Your task to perform on an android device: Empty the shopping cart on amazon. Add macbook pro to the cart on amazon Image 0: 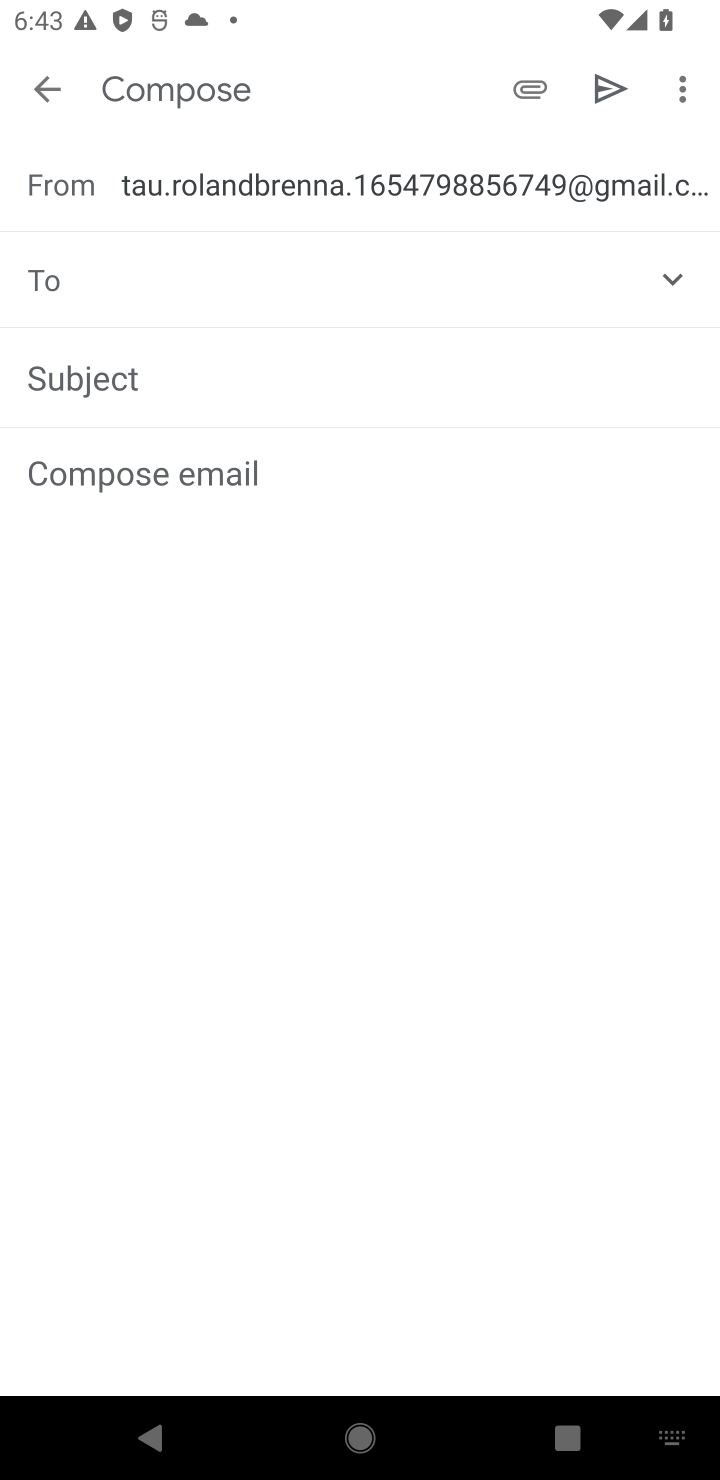
Step 0: press home button
Your task to perform on an android device: Empty the shopping cart on amazon. Add macbook pro to the cart on amazon Image 1: 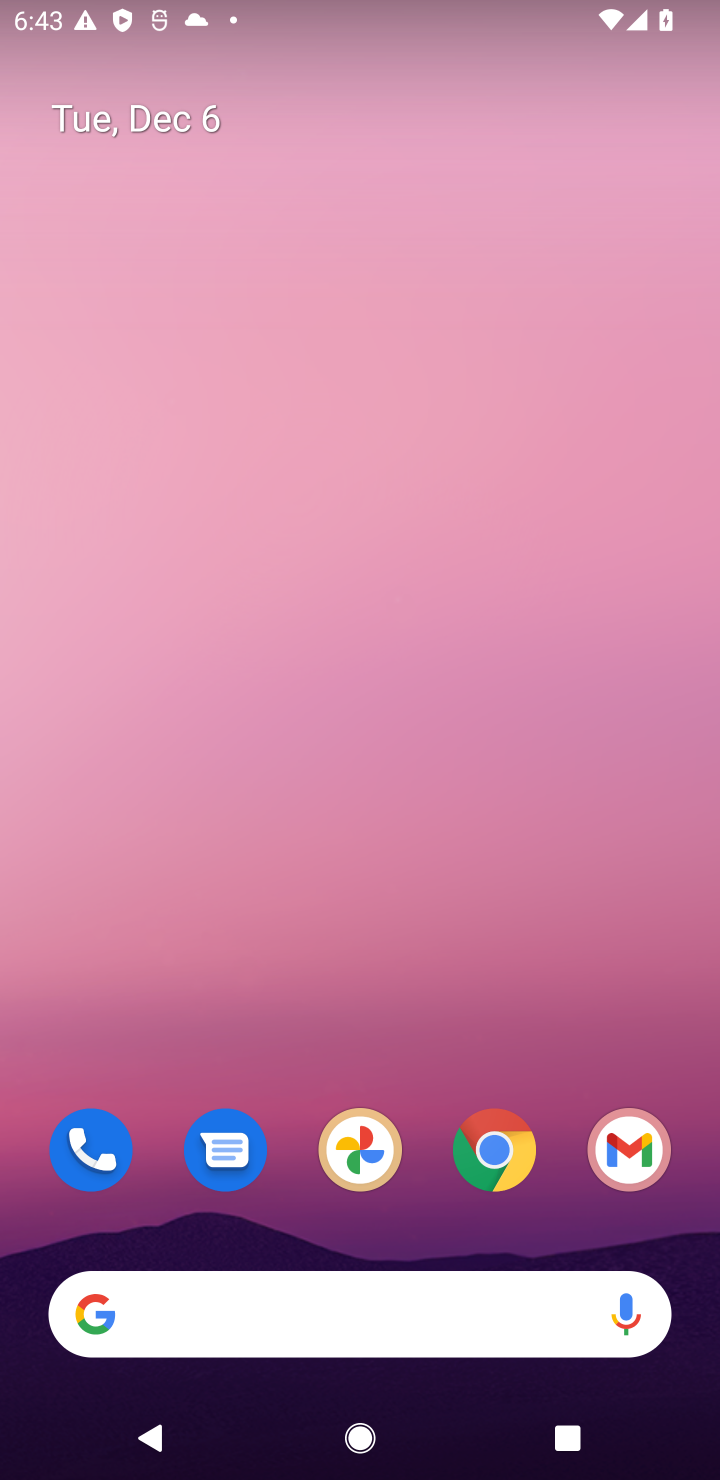
Step 1: click (499, 1172)
Your task to perform on an android device: Empty the shopping cart on amazon. Add macbook pro to the cart on amazon Image 2: 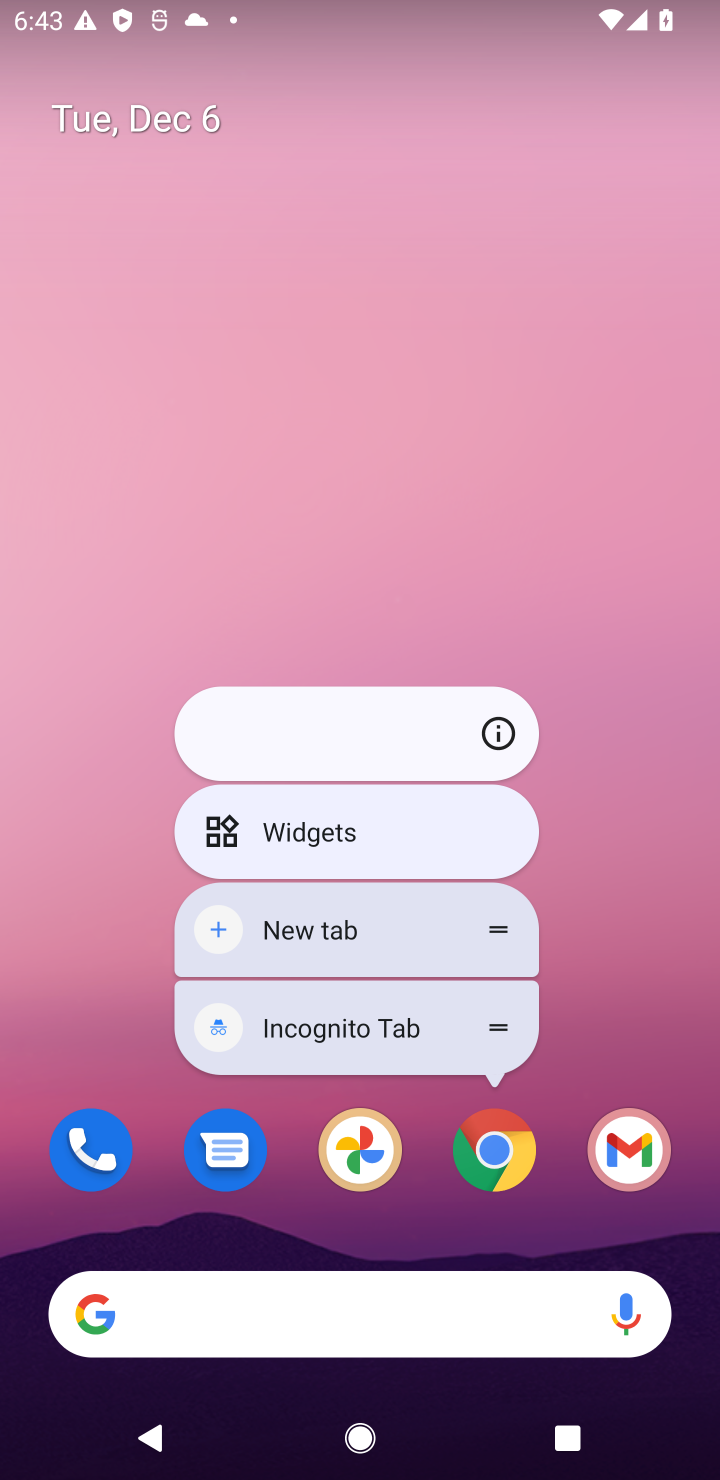
Step 2: click (499, 1172)
Your task to perform on an android device: Empty the shopping cart on amazon. Add macbook pro to the cart on amazon Image 3: 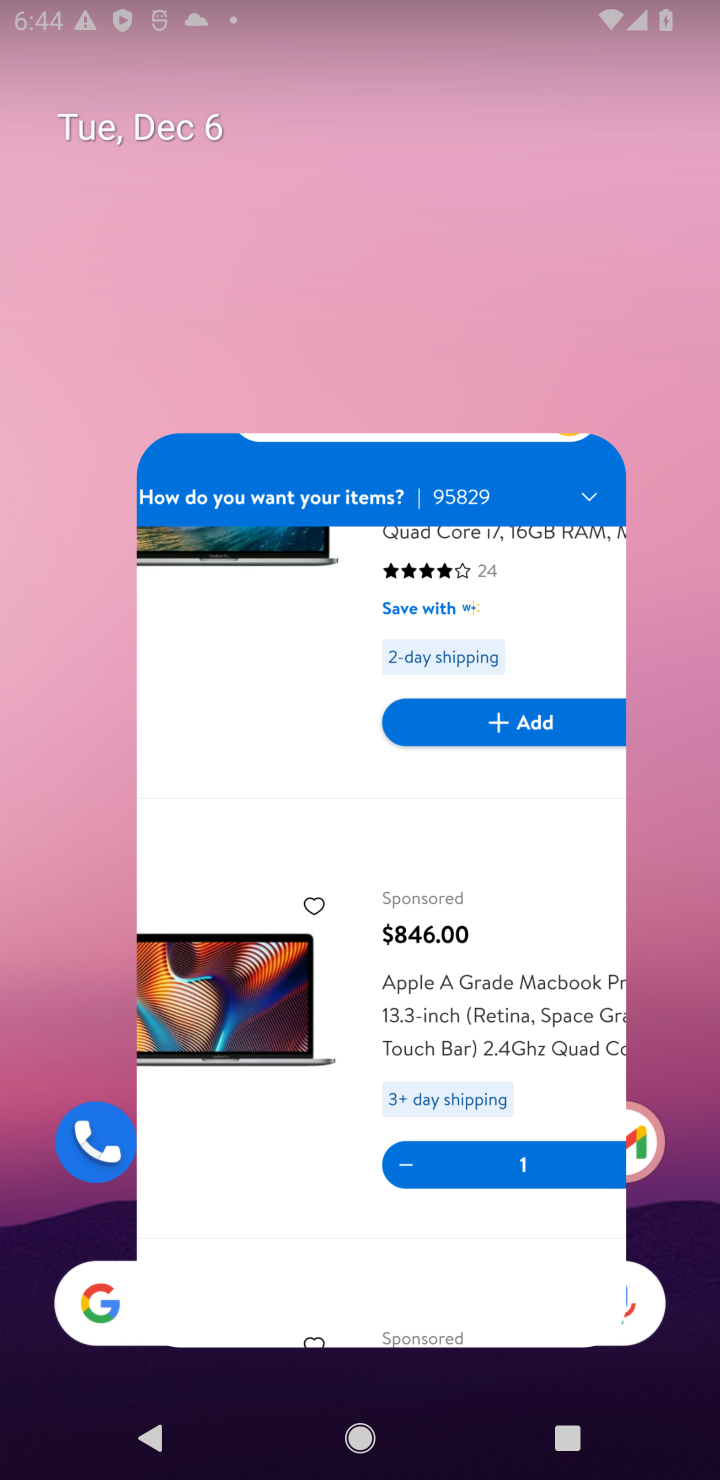
Step 3: click (508, 1132)
Your task to perform on an android device: Empty the shopping cart on amazon. Add macbook pro to the cart on amazon Image 4: 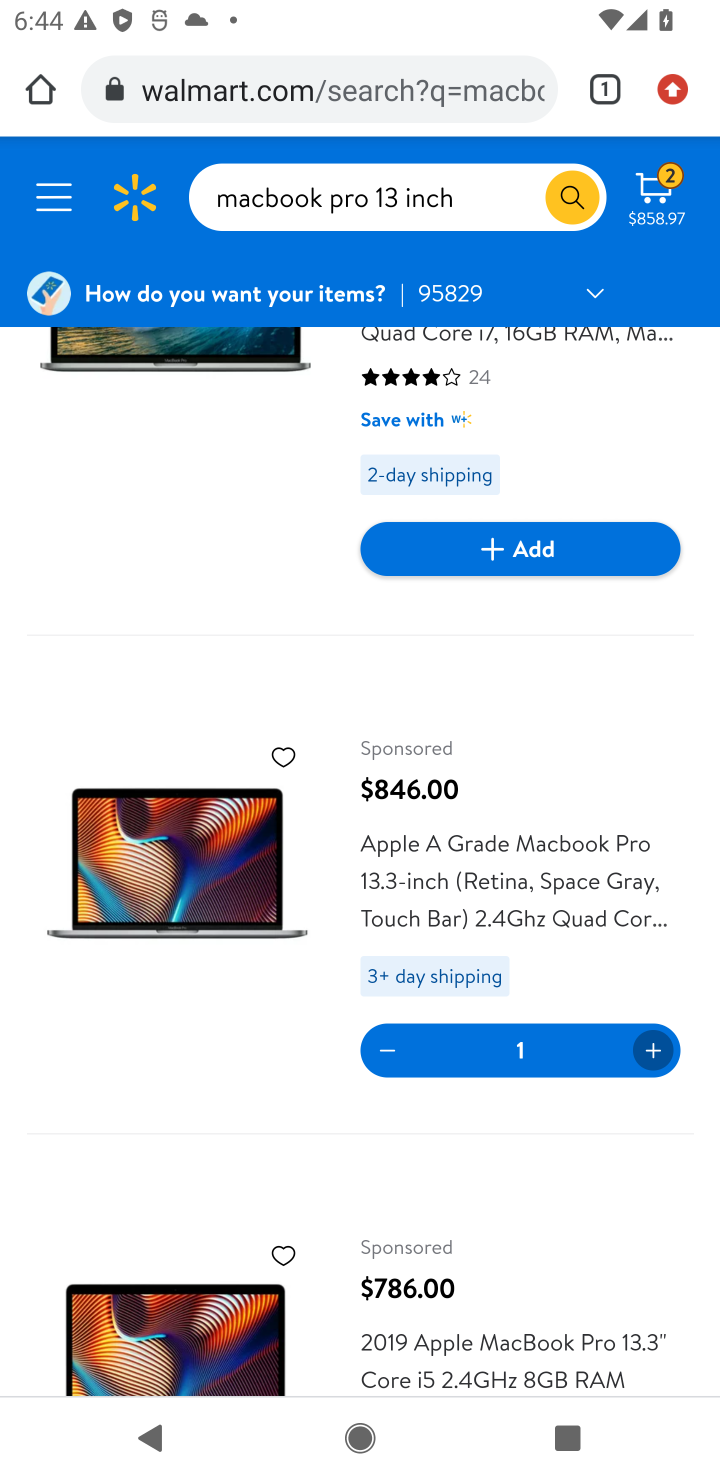
Step 4: click (303, 101)
Your task to perform on an android device: Empty the shopping cart on amazon. Add macbook pro to the cart on amazon Image 5: 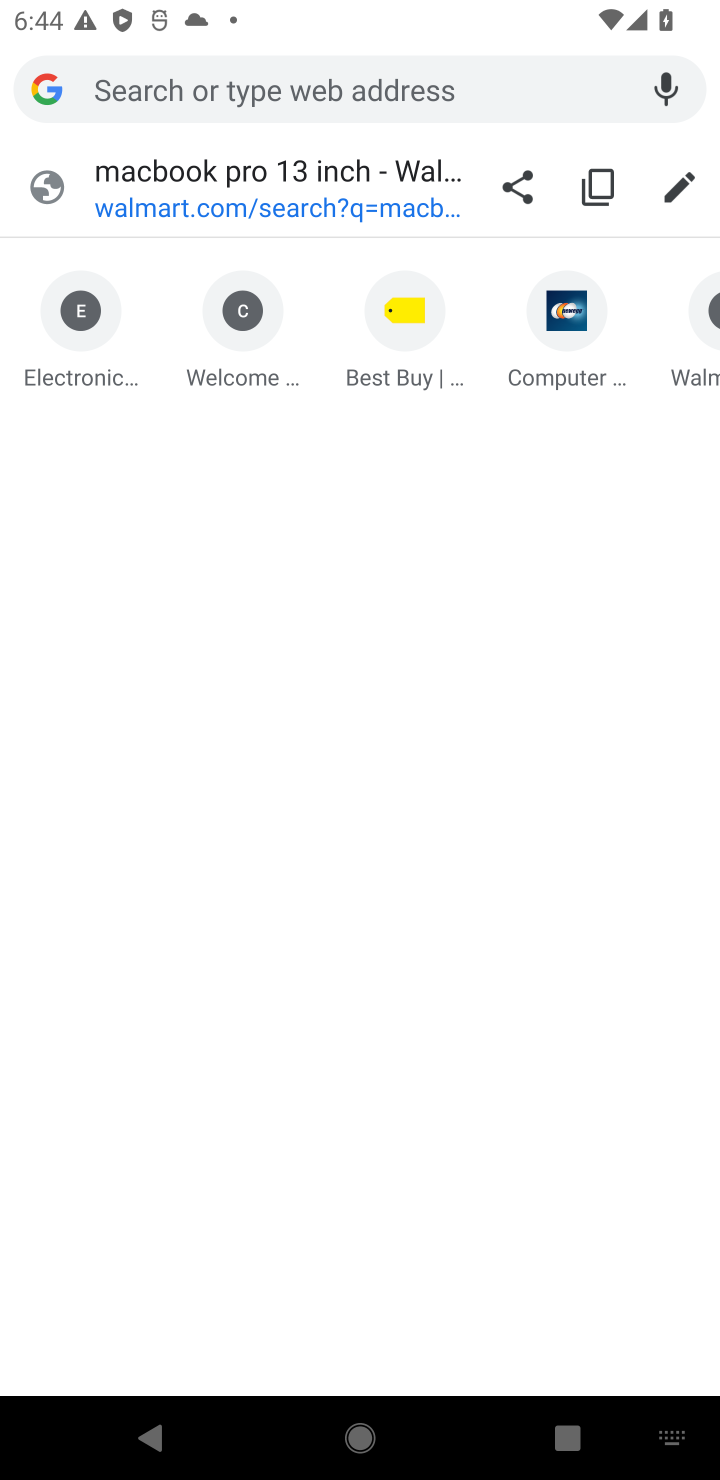
Step 5: type "amazon.com"
Your task to perform on an android device: Empty the shopping cart on amazon. Add macbook pro to the cart on amazon Image 6: 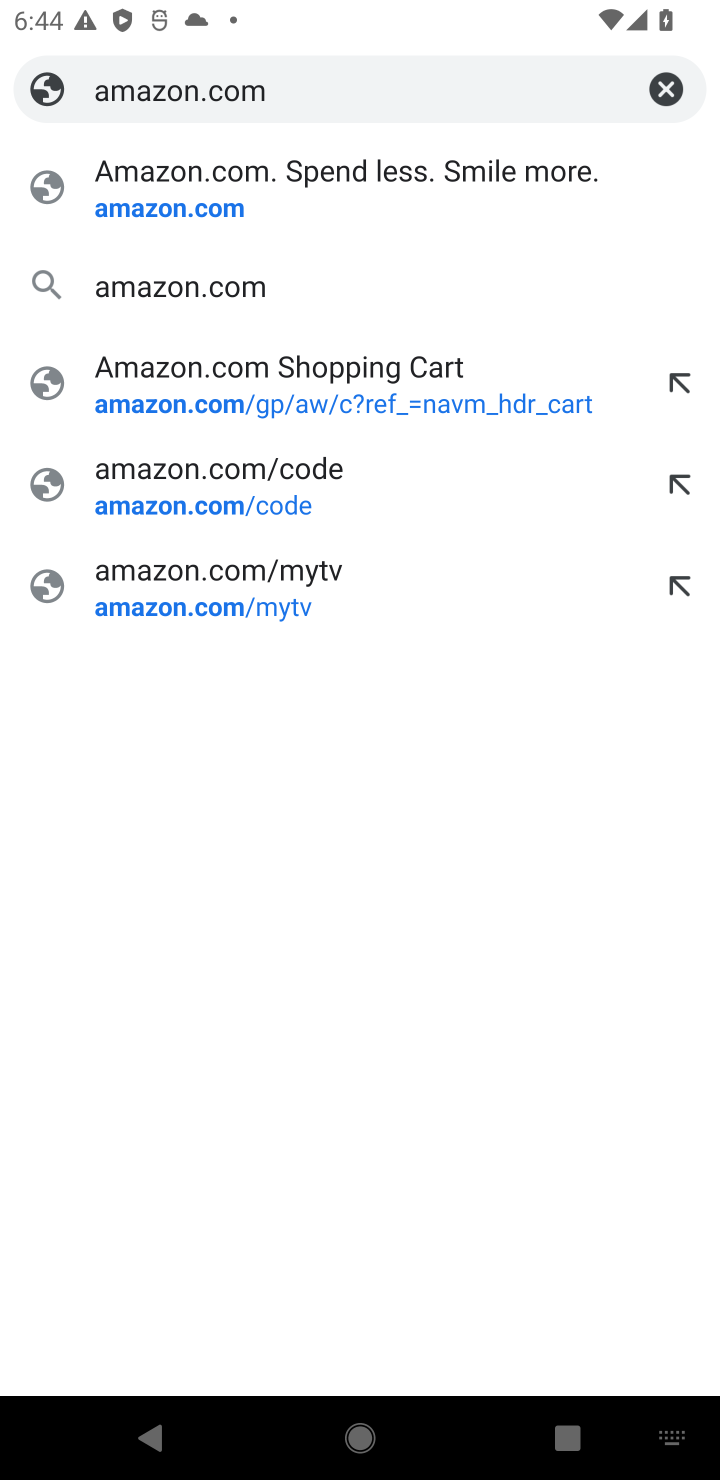
Step 6: click (140, 224)
Your task to perform on an android device: Empty the shopping cart on amazon. Add macbook pro to the cart on amazon Image 7: 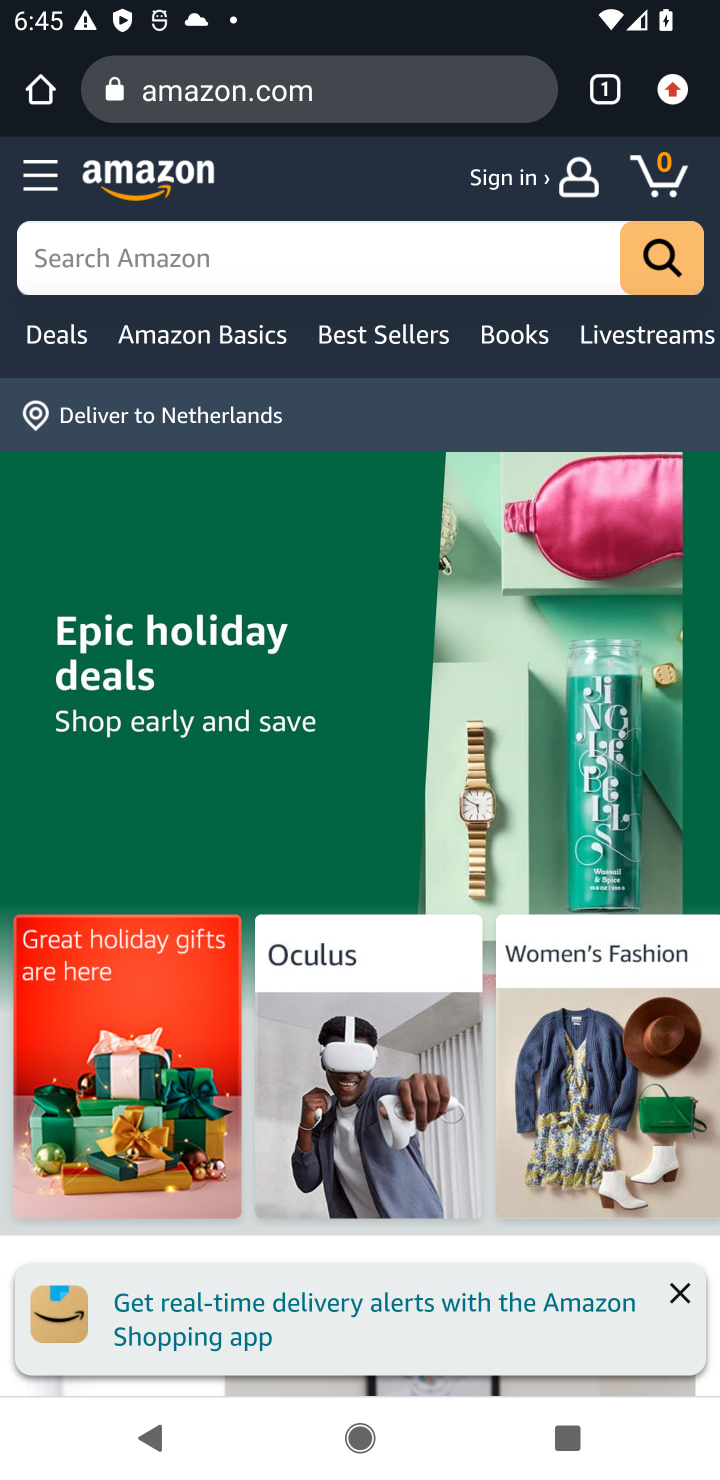
Step 7: click (660, 188)
Your task to perform on an android device: Empty the shopping cart on amazon. Add macbook pro to the cart on amazon Image 8: 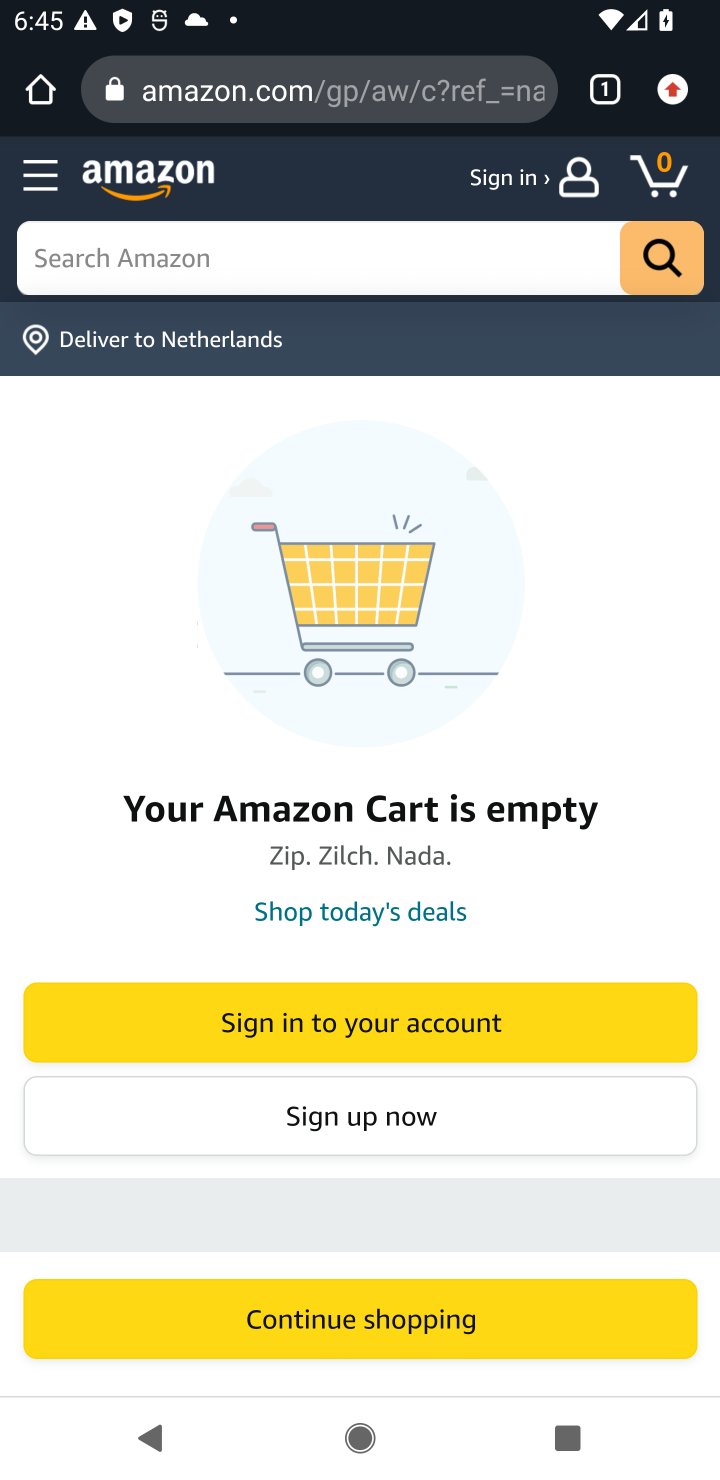
Step 8: click (80, 248)
Your task to perform on an android device: Empty the shopping cart on amazon. Add macbook pro to the cart on amazon Image 9: 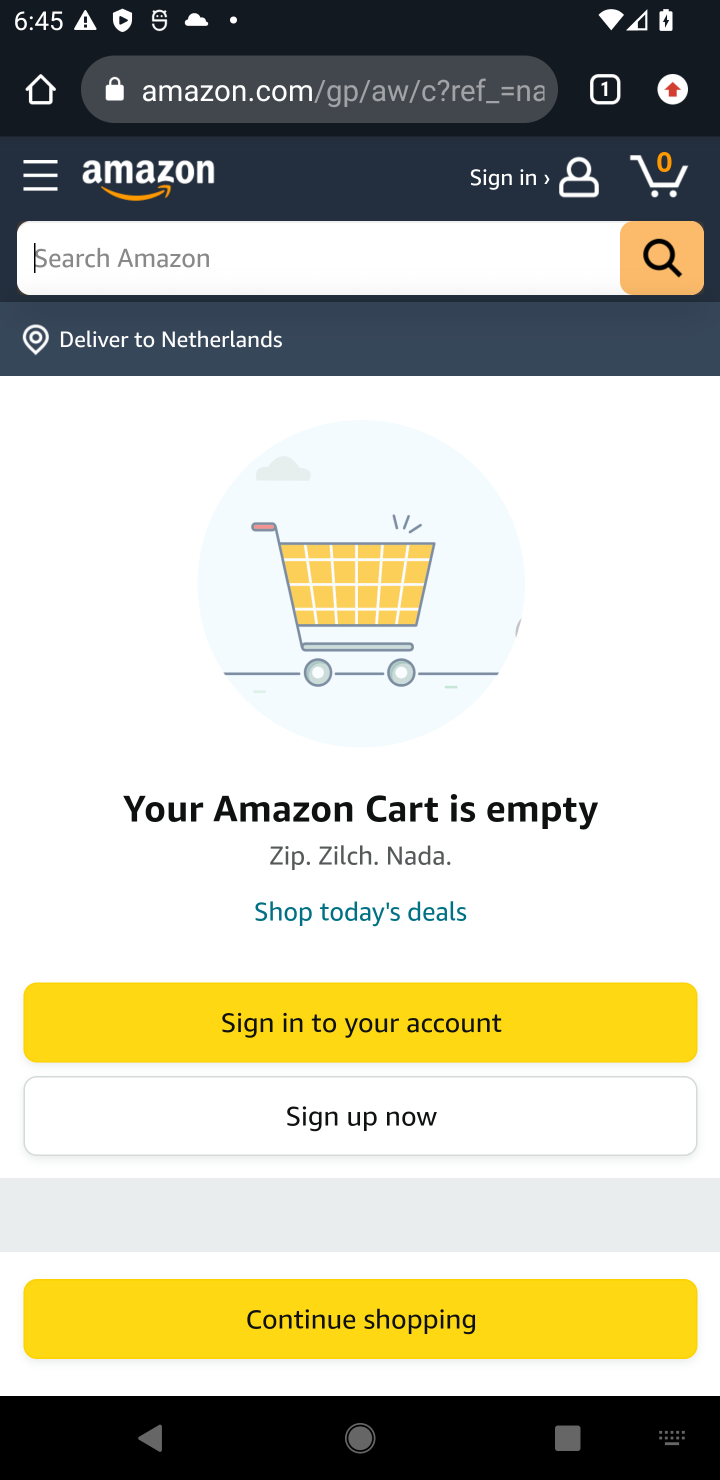
Step 9: type "macbook pro "
Your task to perform on an android device: Empty the shopping cart on amazon. Add macbook pro to the cart on amazon Image 10: 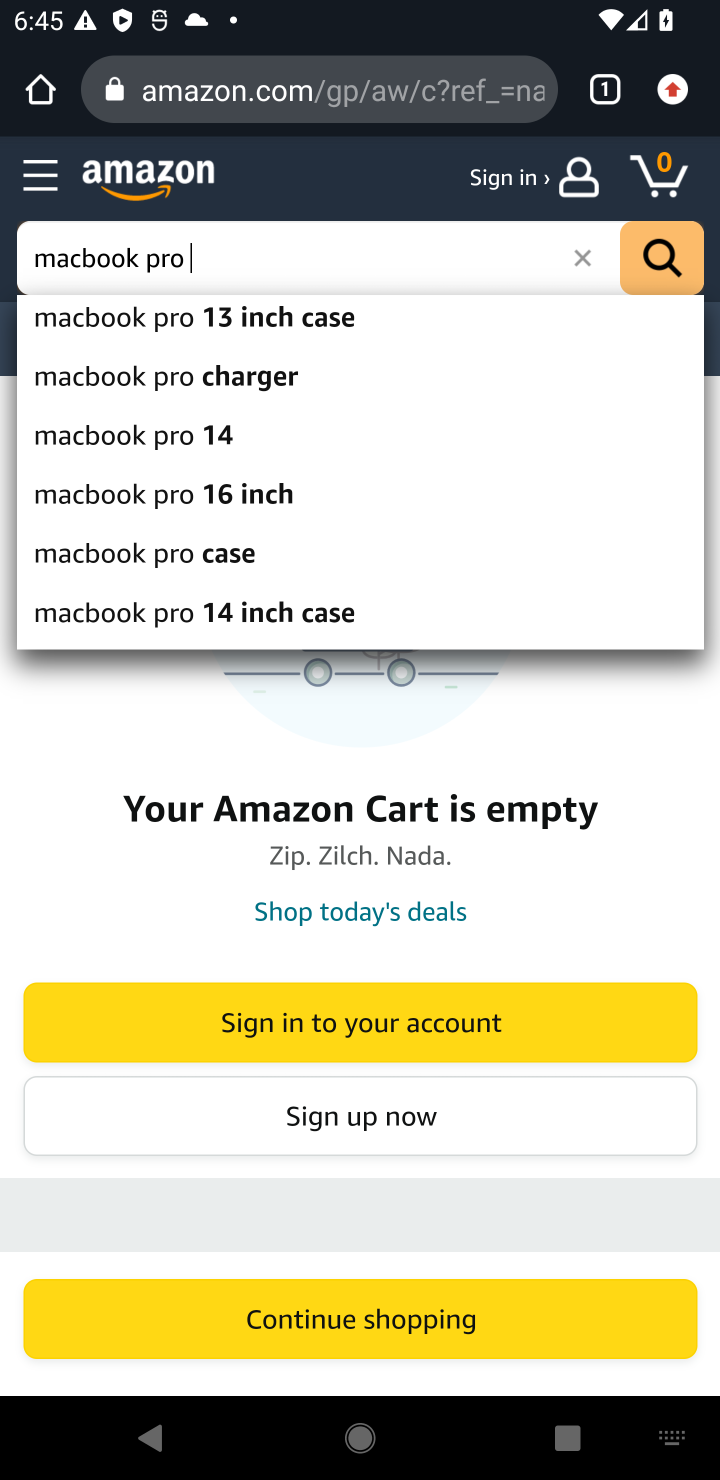
Step 10: click (668, 246)
Your task to perform on an android device: Empty the shopping cart on amazon. Add macbook pro to the cart on amazon Image 11: 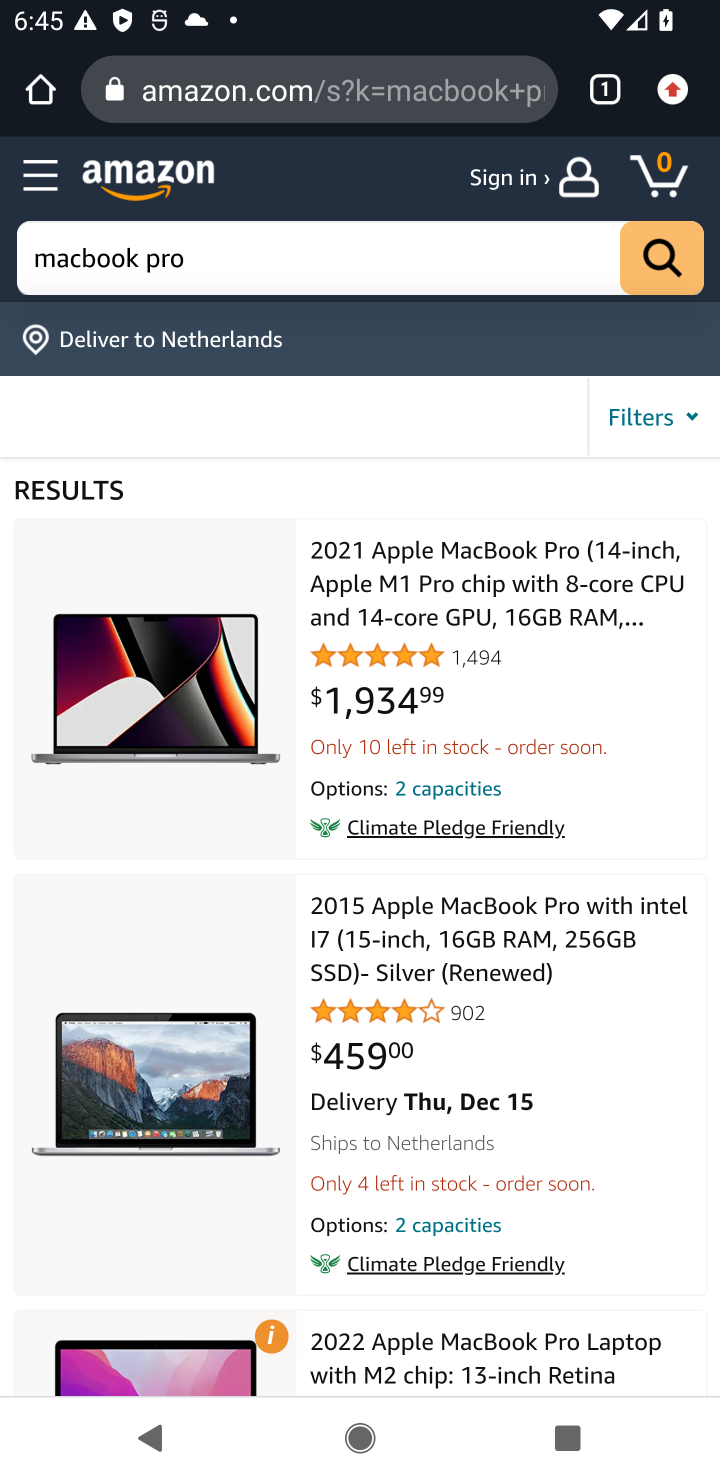
Step 11: click (417, 959)
Your task to perform on an android device: Empty the shopping cart on amazon. Add macbook pro to the cart on amazon Image 12: 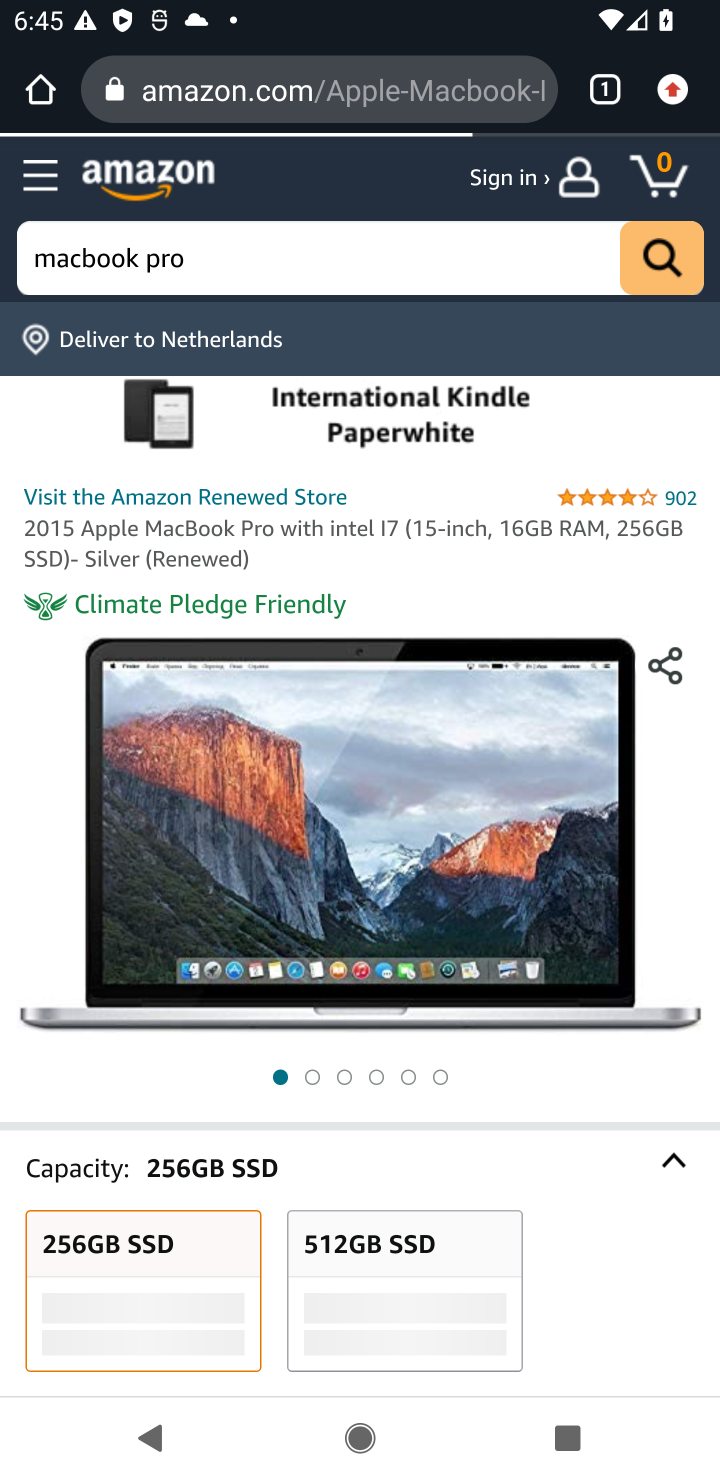
Step 12: drag from (457, 1232) to (387, 527)
Your task to perform on an android device: Empty the shopping cart on amazon. Add macbook pro to the cart on amazon Image 13: 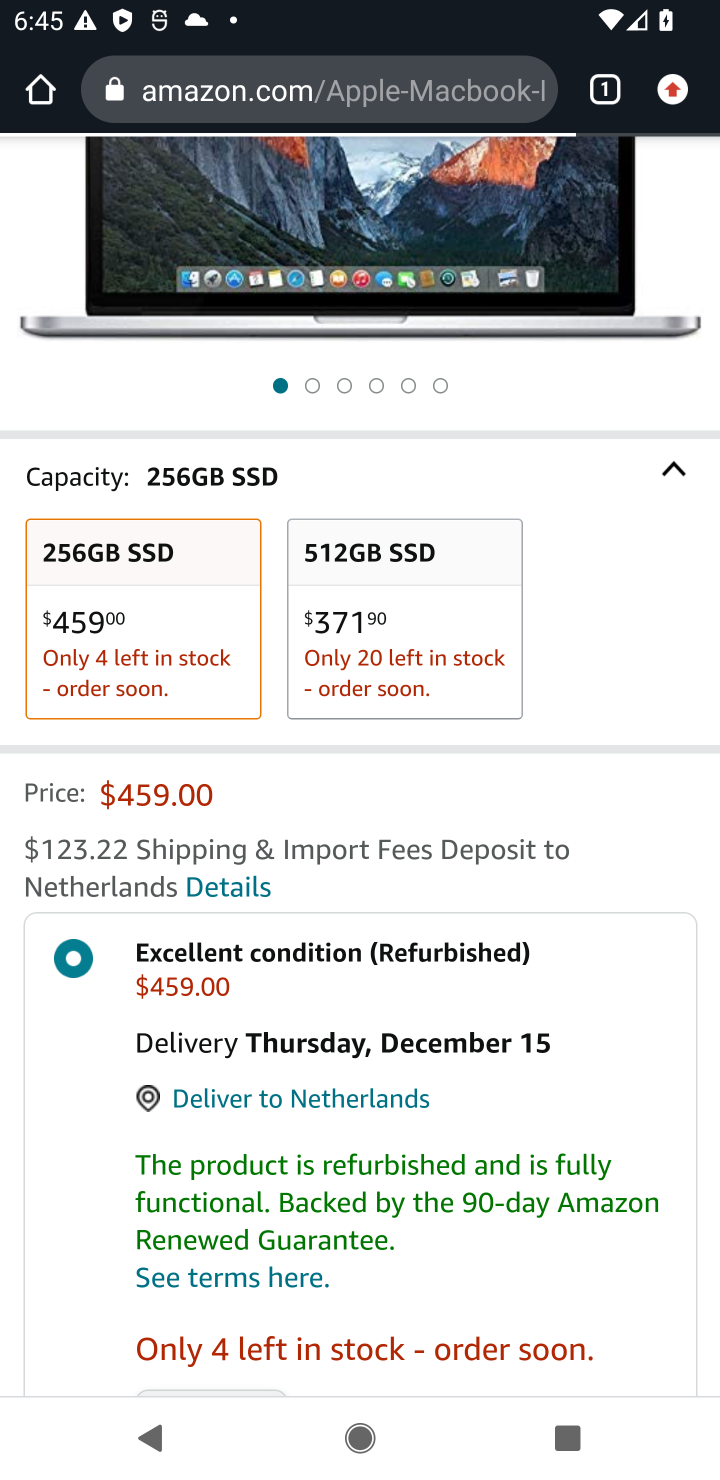
Step 13: drag from (423, 1134) to (403, 692)
Your task to perform on an android device: Empty the shopping cart on amazon. Add macbook pro to the cart on amazon Image 14: 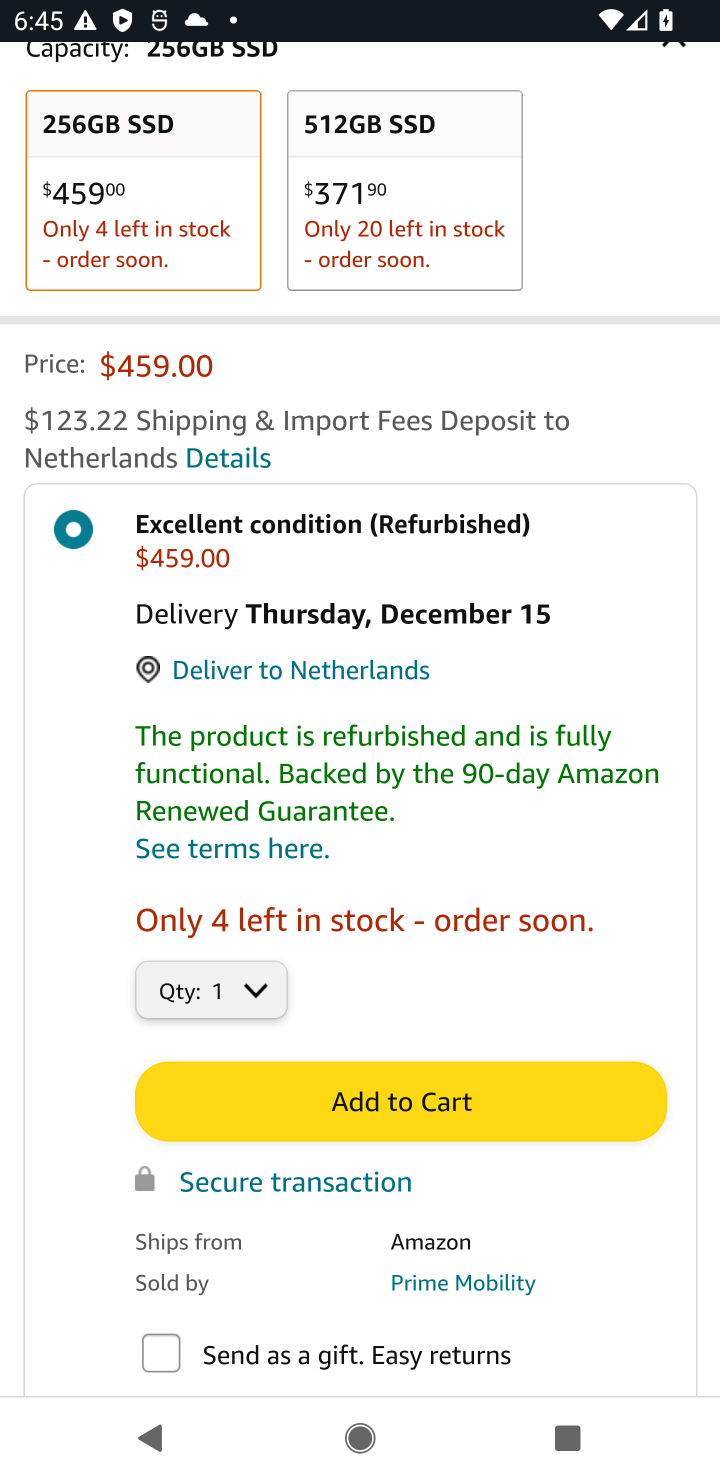
Step 14: click (368, 1088)
Your task to perform on an android device: Empty the shopping cart on amazon. Add macbook pro to the cart on amazon Image 15: 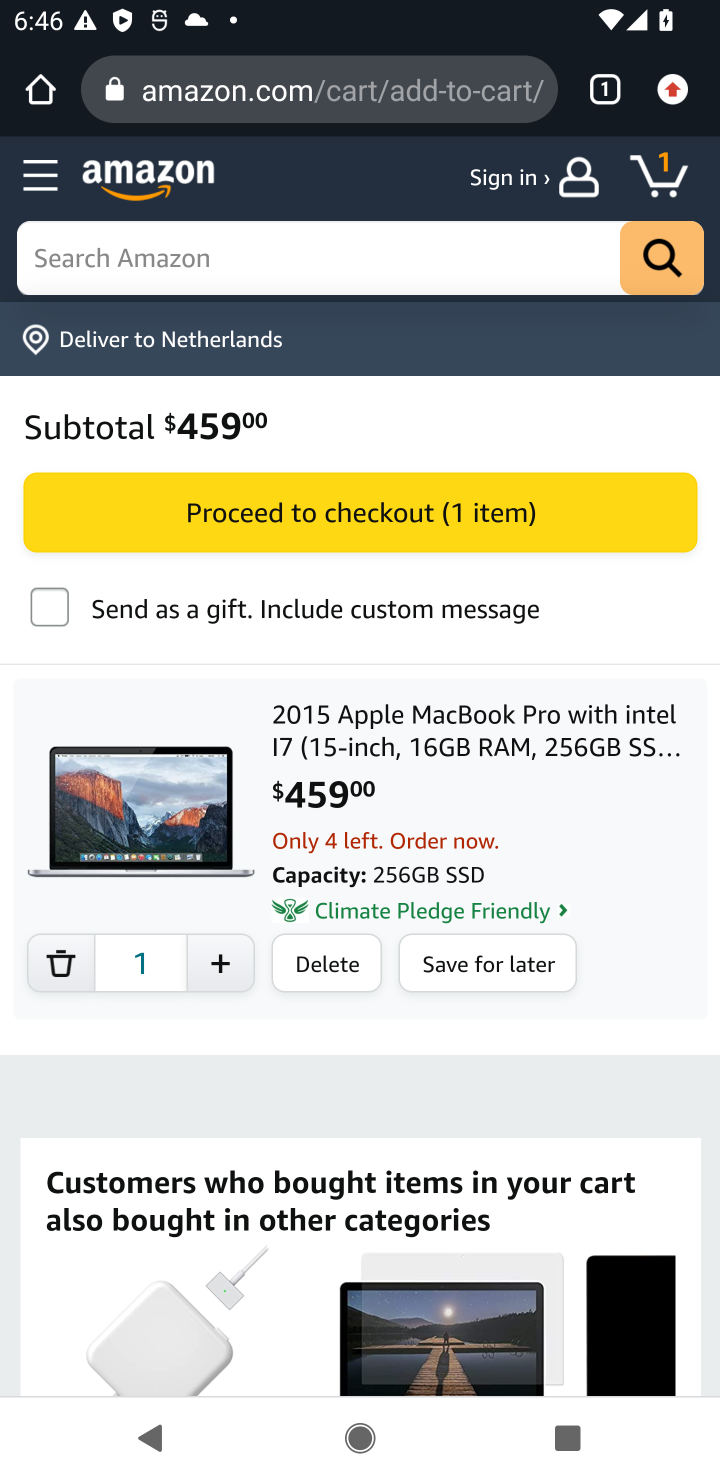
Step 15: task complete